Your task to perform on an android device: Open Google Image 0: 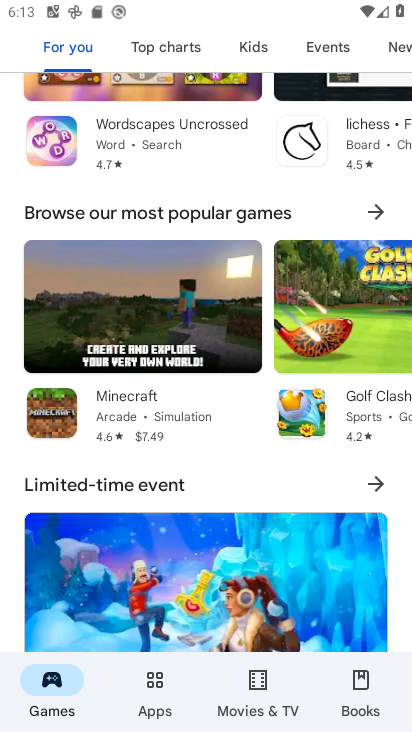
Step 0: press home button
Your task to perform on an android device: Open Google Image 1: 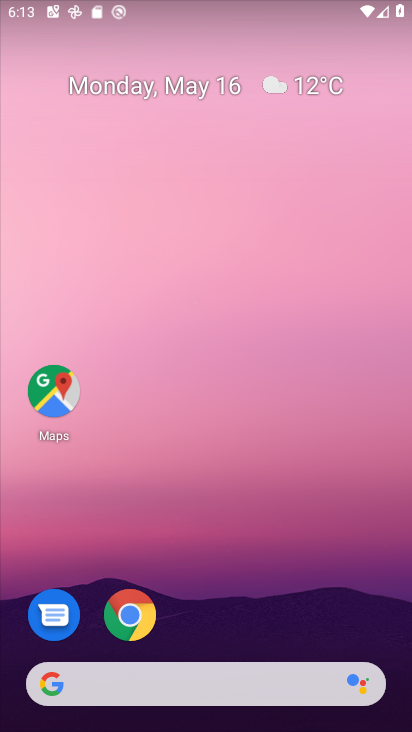
Step 1: click (178, 681)
Your task to perform on an android device: Open Google Image 2: 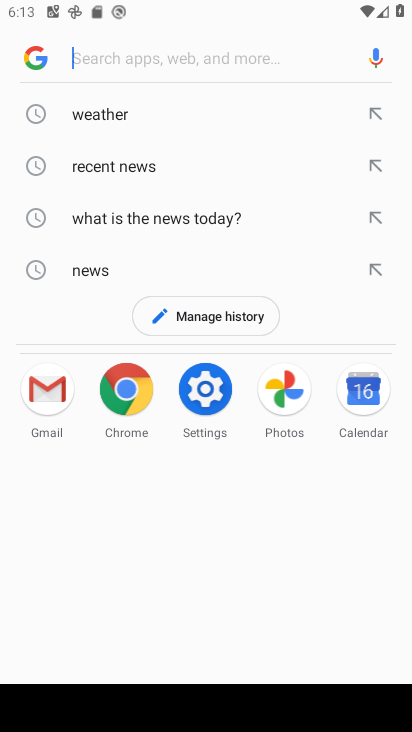
Step 2: task complete